Your task to perform on an android device: change your default location settings in chrome Image 0: 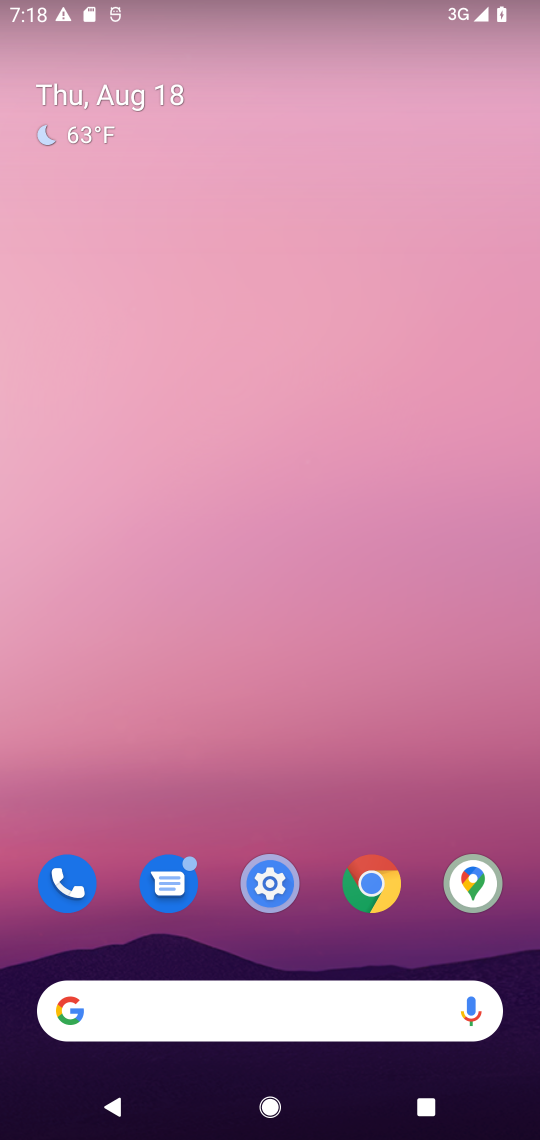
Step 0: click (357, 880)
Your task to perform on an android device: change your default location settings in chrome Image 1: 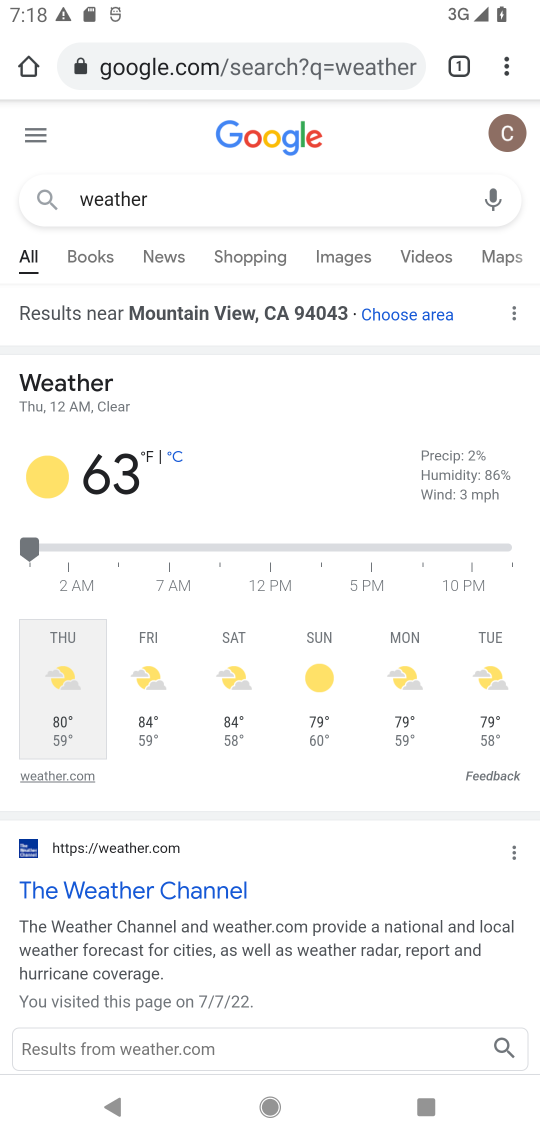
Step 1: click (504, 70)
Your task to perform on an android device: change your default location settings in chrome Image 2: 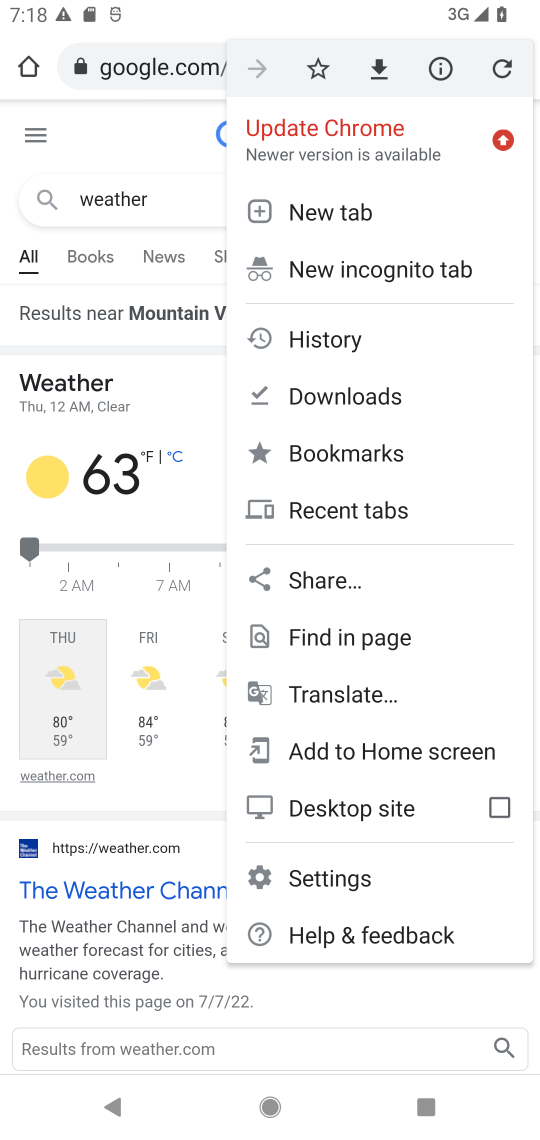
Step 2: click (330, 869)
Your task to perform on an android device: change your default location settings in chrome Image 3: 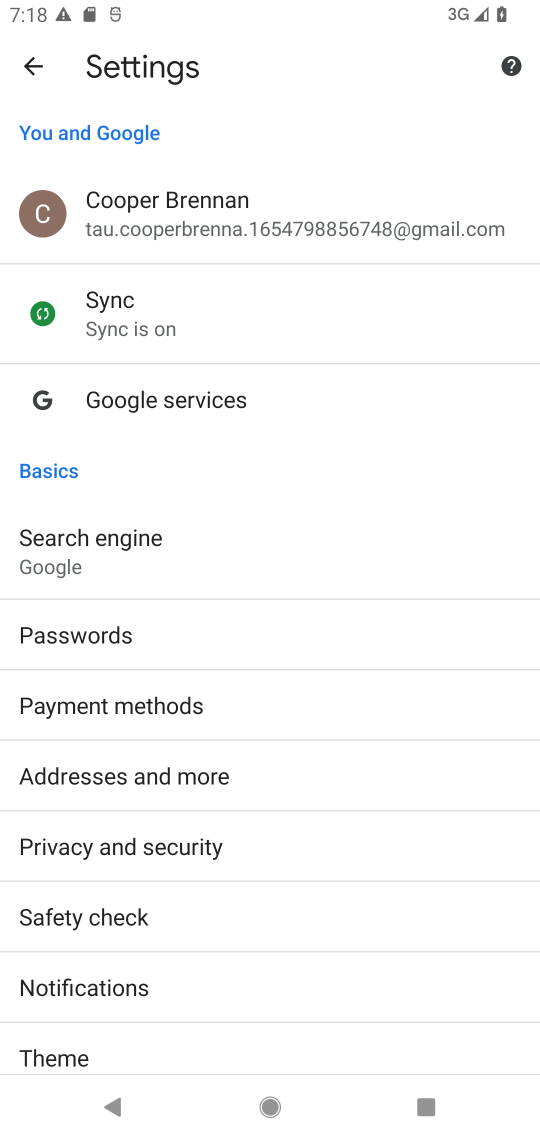
Step 3: drag from (259, 1019) to (409, 308)
Your task to perform on an android device: change your default location settings in chrome Image 4: 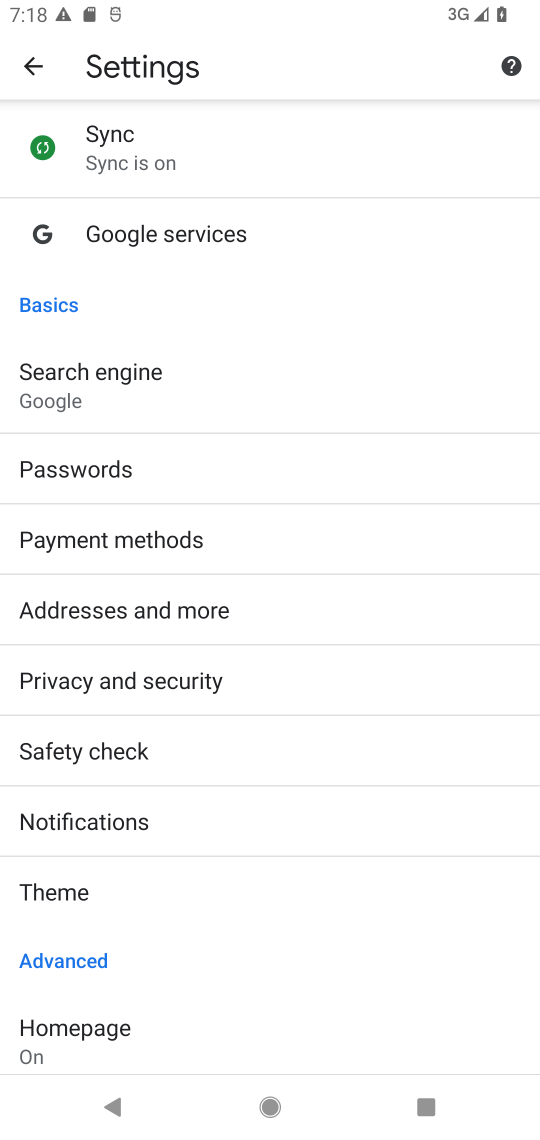
Step 4: drag from (332, 1017) to (290, 407)
Your task to perform on an android device: change your default location settings in chrome Image 5: 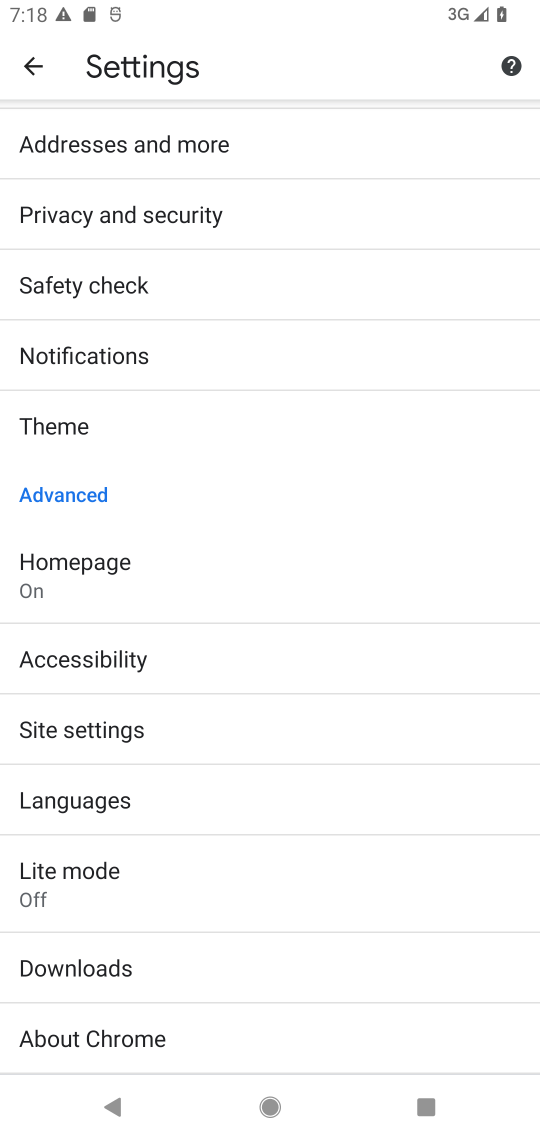
Step 5: drag from (275, 990) to (322, 452)
Your task to perform on an android device: change your default location settings in chrome Image 6: 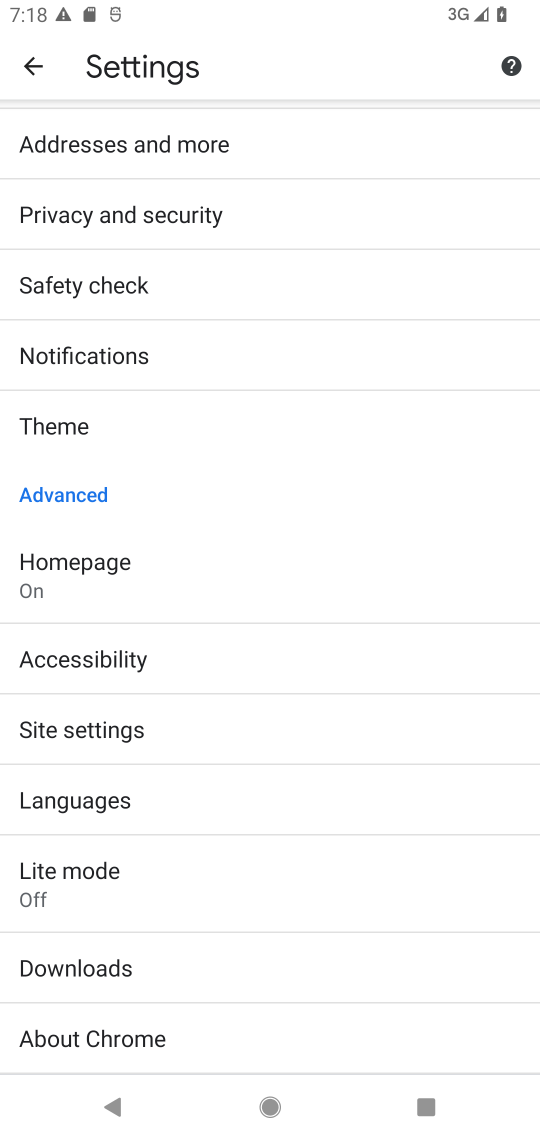
Step 6: click (120, 715)
Your task to perform on an android device: change your default location settings in chrome Image 7: 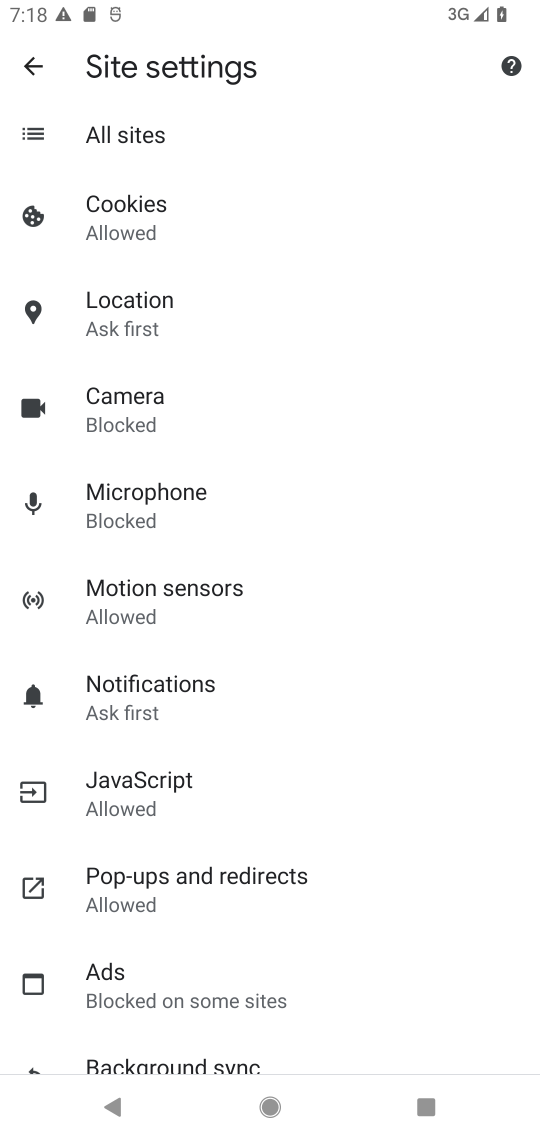
Step 7: click (104, 320)
Your task to perform on an android device: change your default location settings in chrome Image 8: 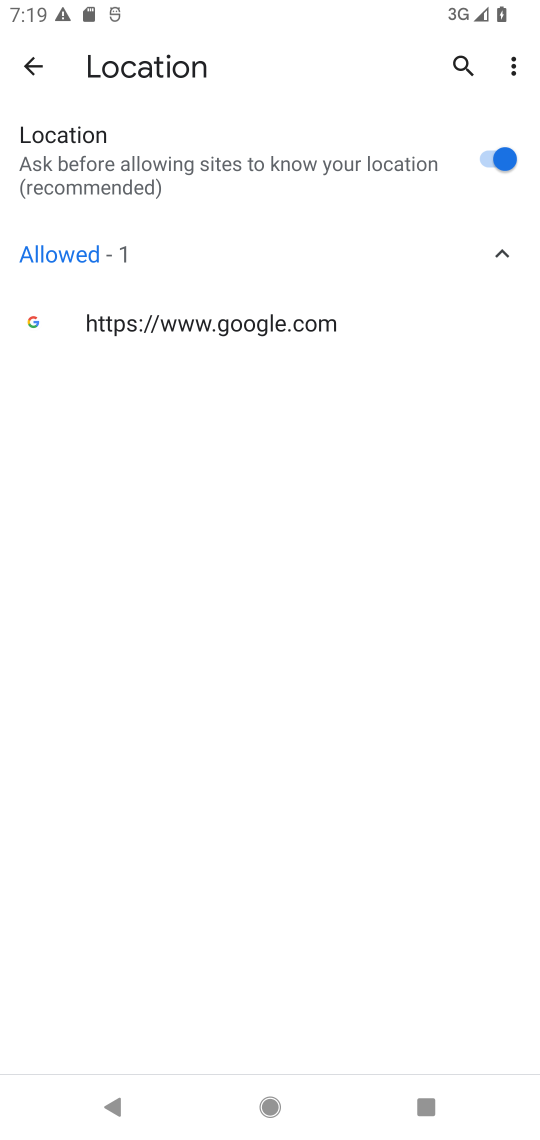
Step 8: task complete